Your task to perform on an android device: Is it going to rain today? Image 0: 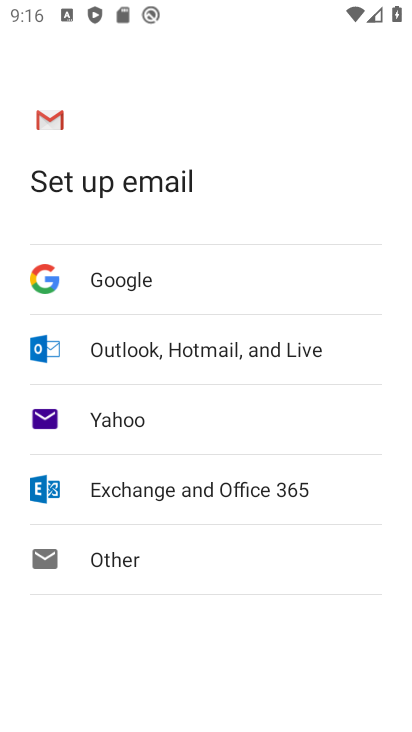
Step 0: press home button
Your task to perform on an android device: Is it going to rain today? Image 1: 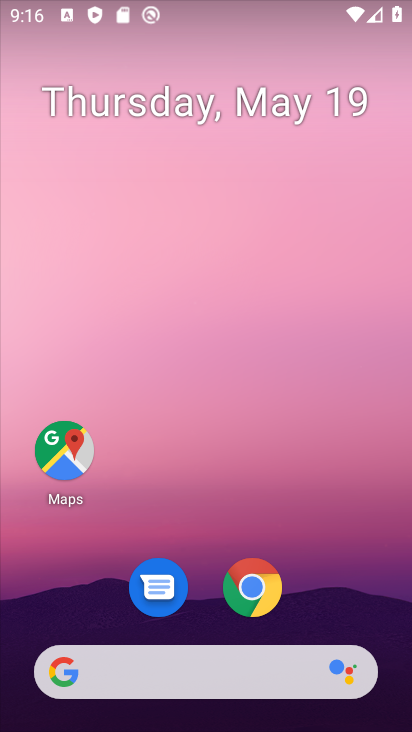
Step 1: drag from (337, 560) to (333, 12)
Your task to perform on an android device: Is it going to rain today? Image 2: 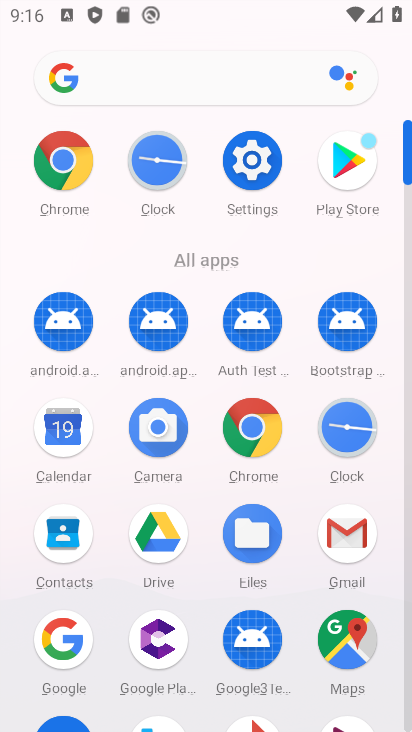
Step 2: drag from (404, 550) to (409, 100)
Your task to perform on an android device: Is it going to rain today? Image 3: 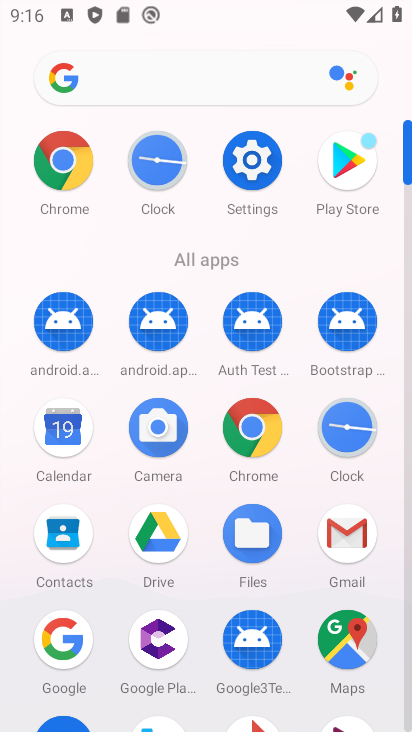
Step 3: drag from (403, 699) to (7, 10)
Your task to perform on an android device: Is it going to rain today? Image 4: 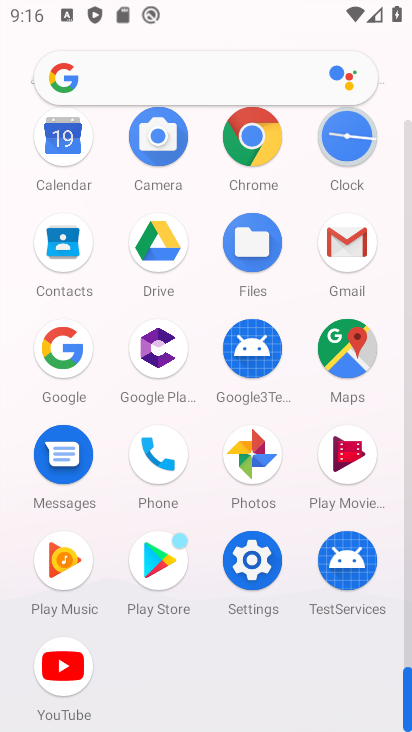
Step 4: click (83, 97)
Your task to perform on an android device: Is it going to rain today? Image 5: 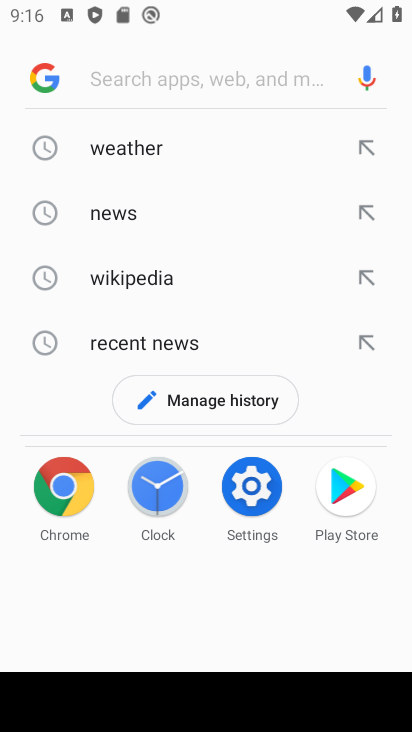
Step 5: click (29, 82)
Your task to perform on an android device: Is it going to rain today? Image 6: 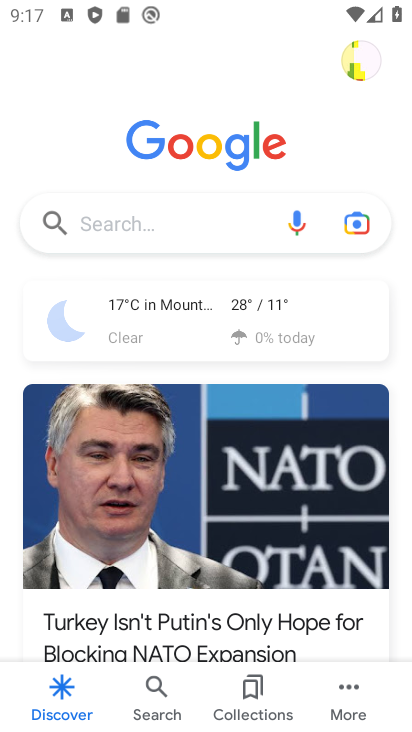
Step 6: click (126, 327)
Your task to perform on an android device: Is it going to rain today? Image 7: 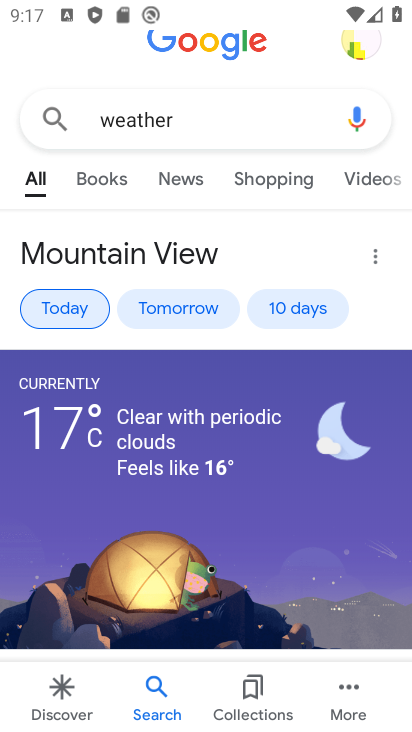
Step 7: task complete